Your task to perform on an android device: toggle notification dots Image 0: 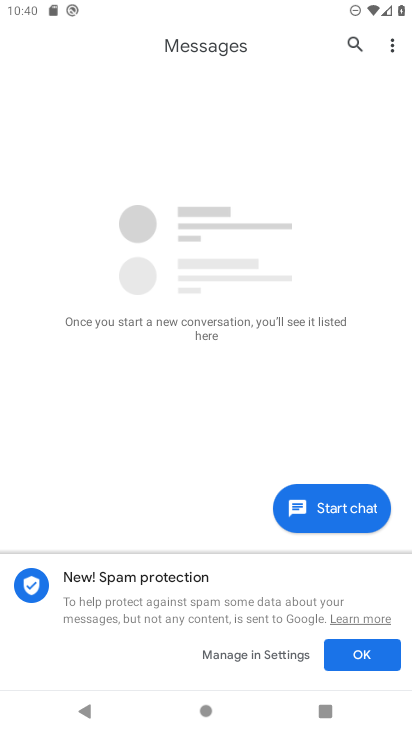
Step 0: press home button
Your task to perform on an android device: toggle notification dots Image 1: 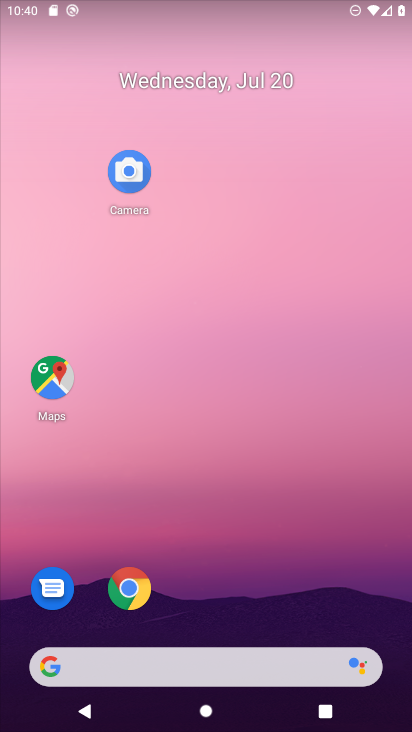
Step 1: drag from (242, 629) to (193, 95)
Your task to perform on an android device: toggle notification dots Image 2: 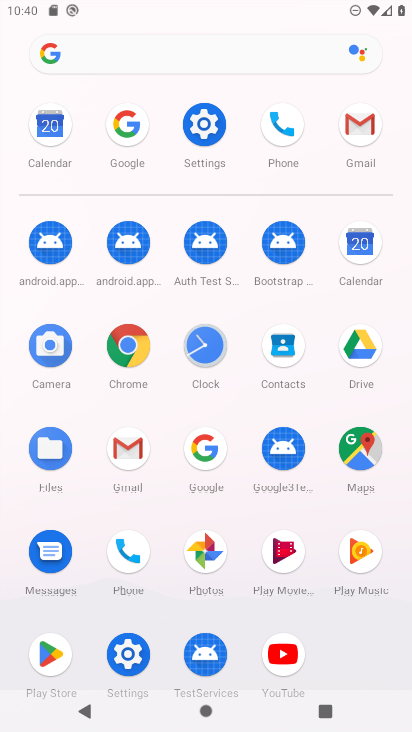
Step 2: click (199, 132)
Your task to perform on an android device: toggle notification dots Image 3: 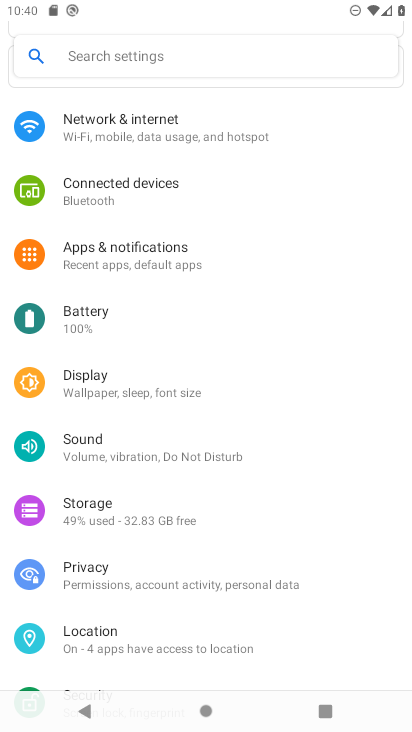
Step 3: click (134, 258)
Your task to perform on an android device: toggle notification dots Image 4: 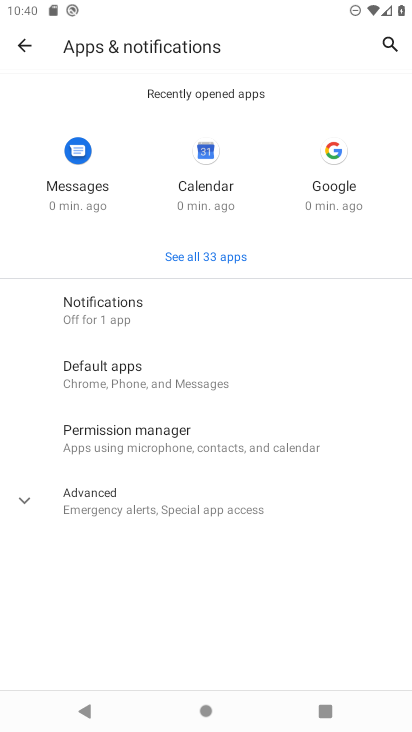
Step 4: click (113, 324)
Your task to perform on an android device: toggle notification dots Image 5: 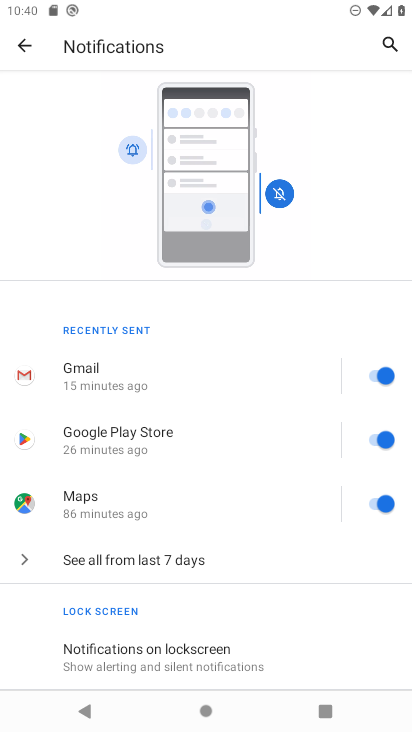
Step 5: drag from (39, 627) to (64, 272)
Your task to perform on an android device: toggle notification dots Image 6: 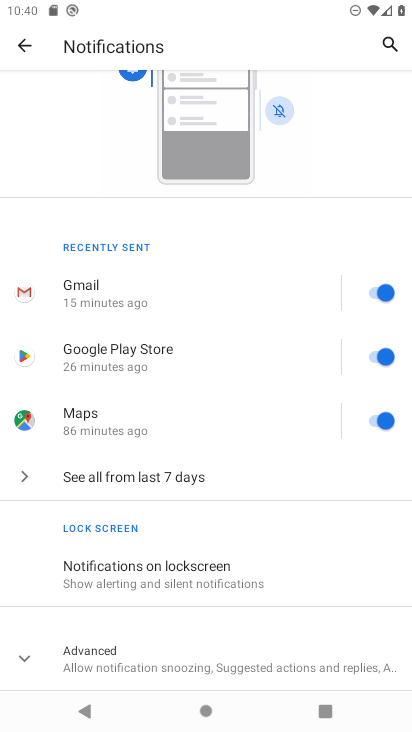
Step 6: click (26, 660)
Your task to perform on an android device: toggle notification dots Image 7: 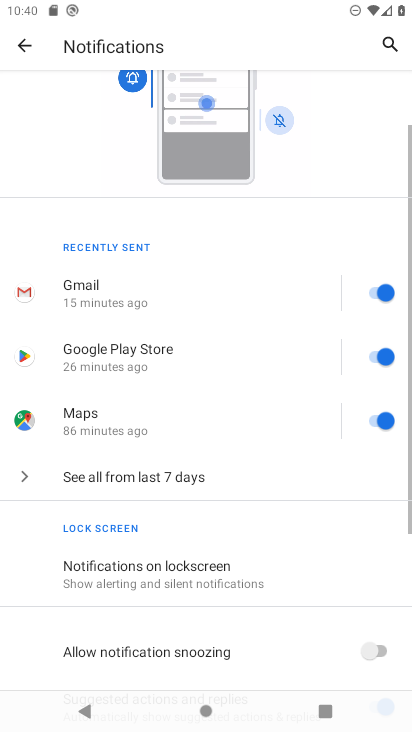
Step 7: drag from (295, 614) to (255, 259)
Your task to perform on an android device: toggle notification dots Image 8: 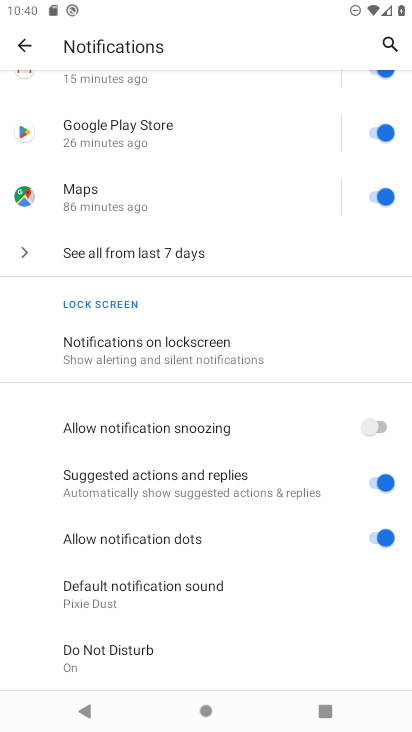
Step 8: click (374, 536)
Your task to perform on an android device: toggle notification dots Image 9: 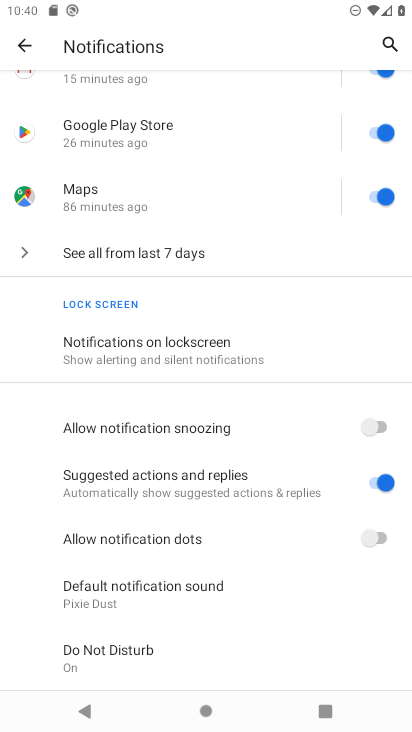
Step 9: task complete